Your task to perform on an android device: When is my next meeting? Image 0: 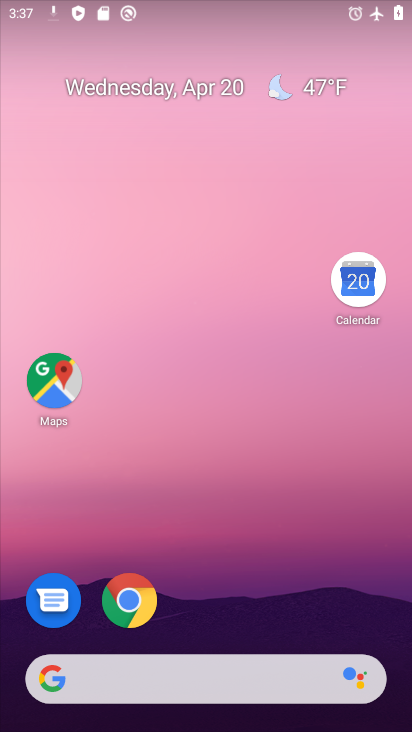
Step 0: drag from (254, 563) to (282, 198)
Your task to perform on an android device: When is my next meeting? Image 1: 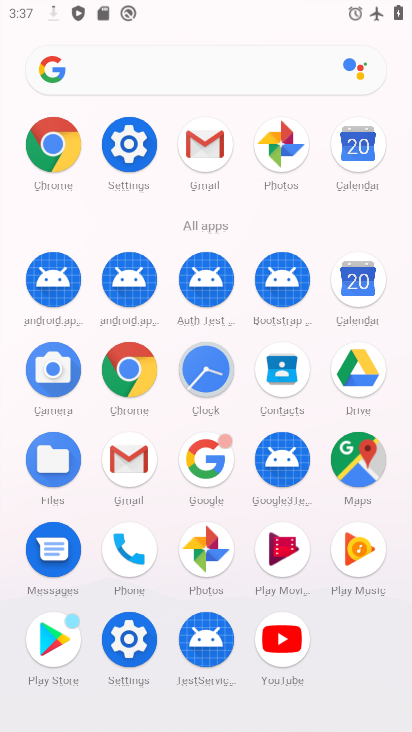
Step 1: click (346, 282)
Your task to perform on an android device: When is my next meeting? Image 2: 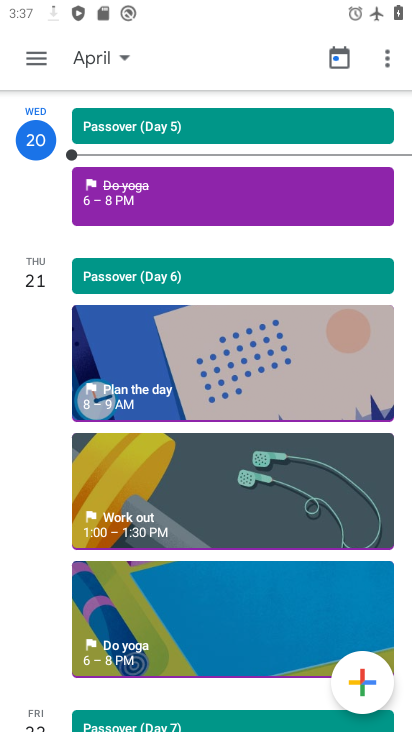
Step 2: click (35, 56)
Your task to perform on an android device: When is my next meeting? Image 3: 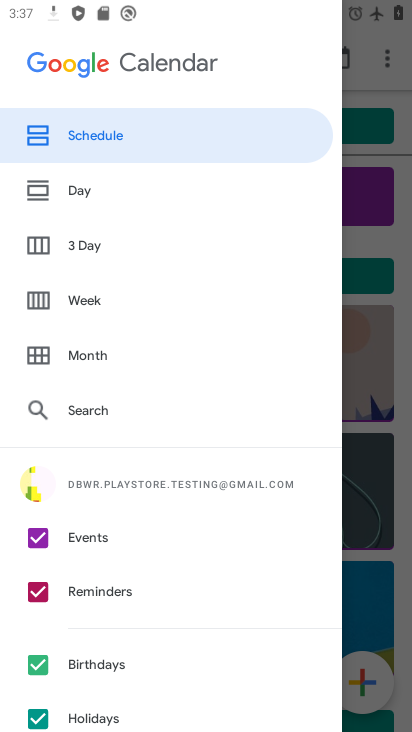
Step 3: click (118, 127)
Your task to perform on an android device: When is my next meeting? Image 4: 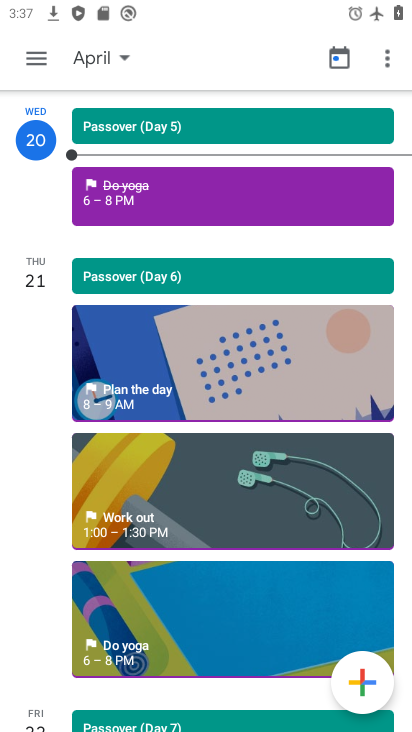
Step 4: drag from (173, 276) to (198, 353)
Your task to perform on an android device: When is my next meeting? Image 5: 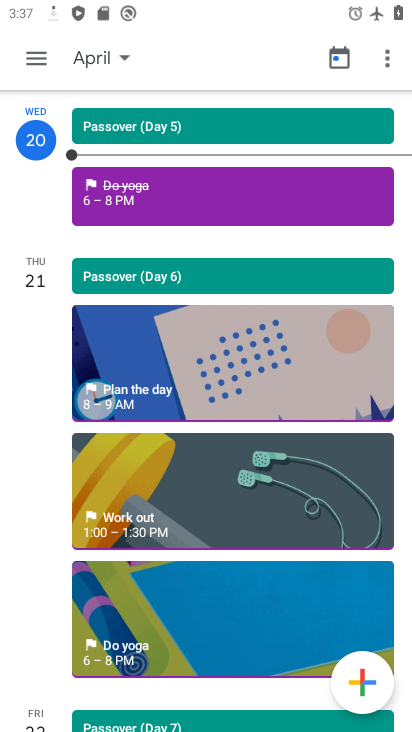
Step 5: click (171, 353)
Your task to perform on an android device: When is my next meeting? Image 6: 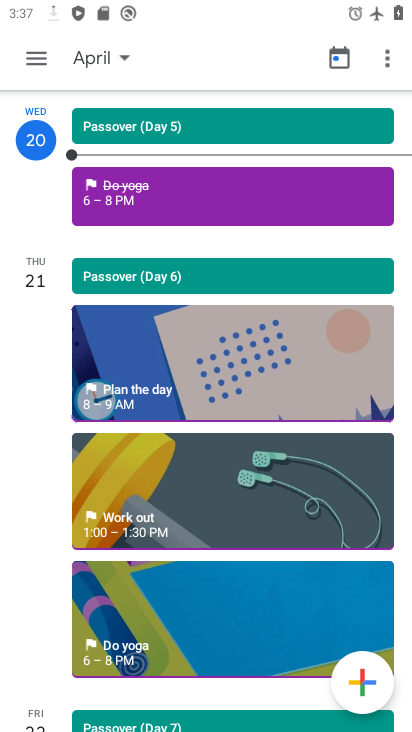
Step 6: click (169, 349)
Your task to perform on an android device: When is my next meeting? Image 7: 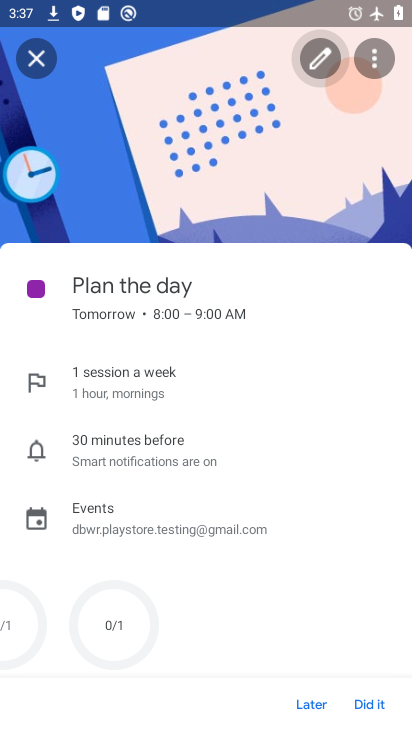
Step 7: click (170, 344)
Your task to perform on an android device: When is my next meeting? Image 8: 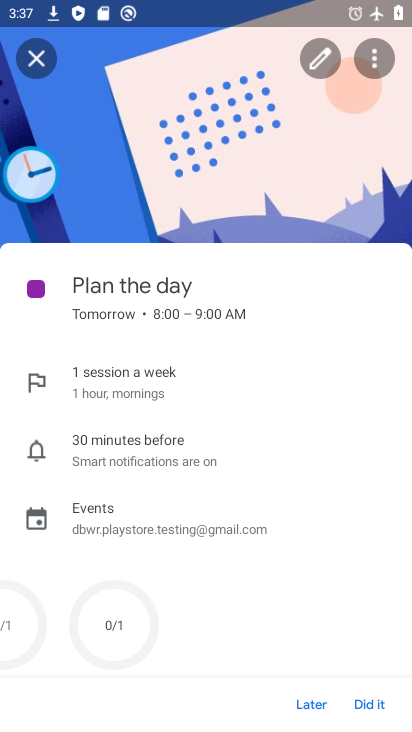
Step 8: task complete